Your task to perform on an android device: add a label to a message in the gmail app Image 0: 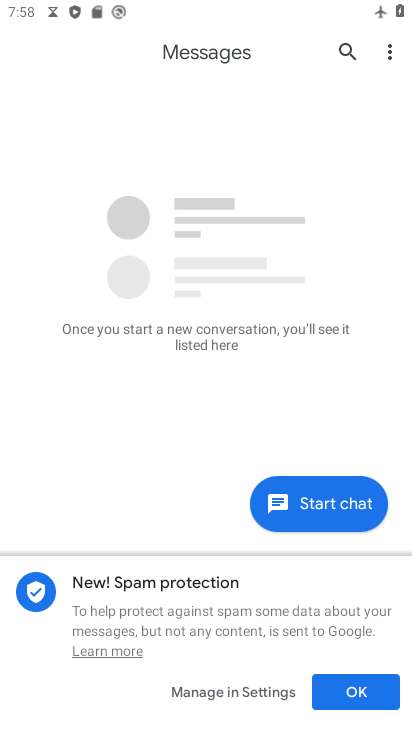
Step 0: press home button
Your task to perform on an android device: add a label to a message in the gmail app Image 1: 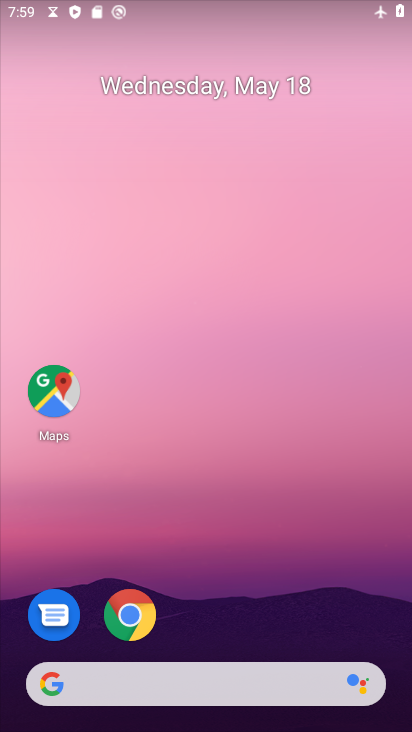
Step 1: drag from (239, 625) to (237, 128)
Your task to perform on an android device: add a label to a message in the gmail app Image 2: 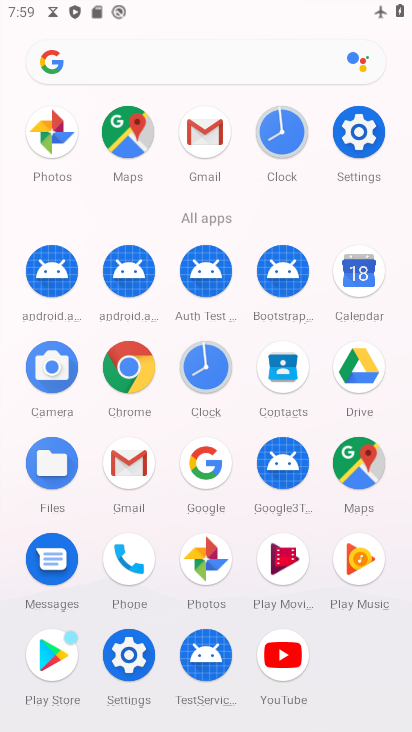
Step 2: click (206, 136)
Your task to perform on an android device: add a label to a message in the gmail app Image 3: 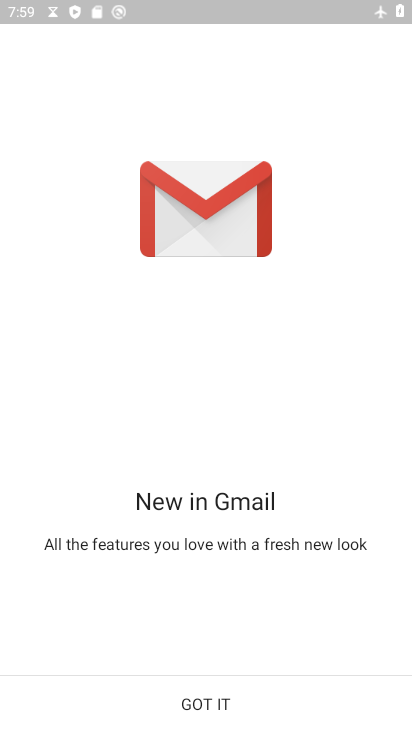
Step 3: click (210, 703)
Your task to perform on an android device: add a label to a message in the gmail app Image 4: 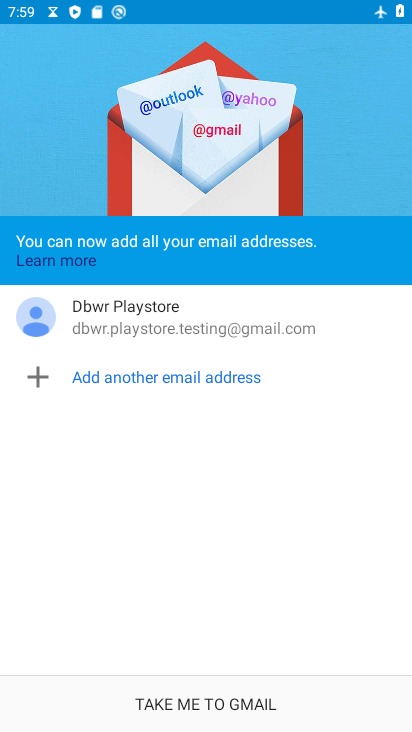
Step 4: click (184, 697)
Your task to perform on an android device: add a label to a message in the gmail app Image 5: 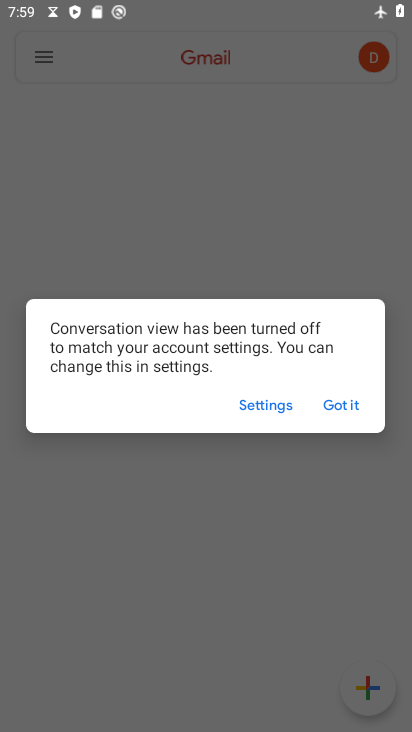
Step 5: click (345, 404)
Your task to perform on an android device: add a label to a message in the gmail app Image 6: 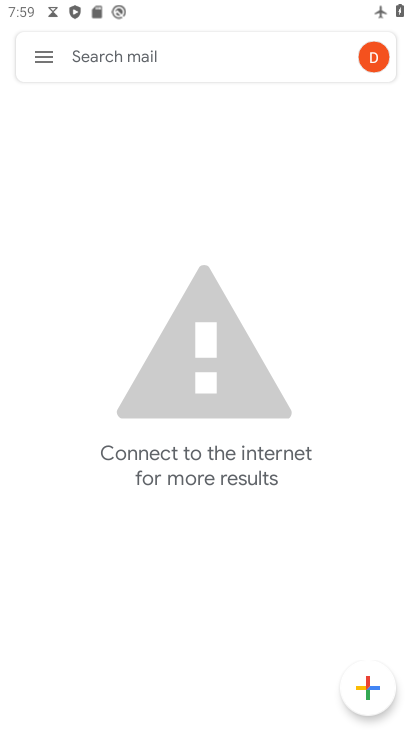
Step 6: click (45, 54)
Your task to perform on an android device: add a label to a message in the gmail app Image 7: 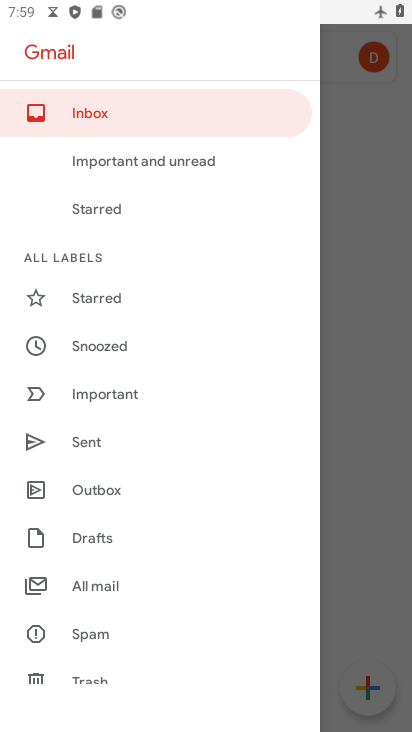
Step 7: click (100, 588)
Your task to perform on an android device: add a label to a message in the gmail app Image 8: 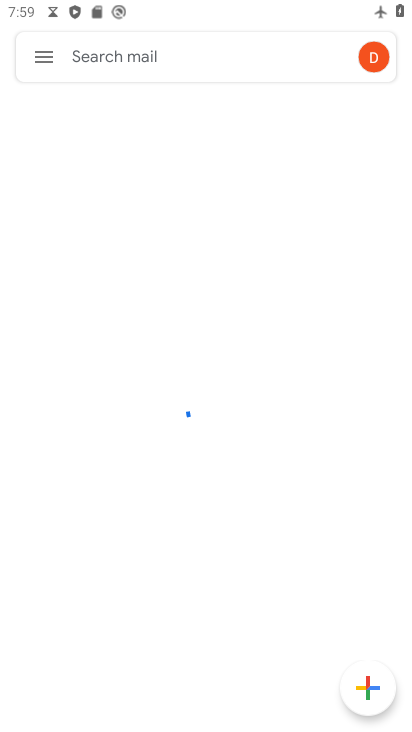
Step 8: drag from (306, 3) to (258, 363)
Your task to perform on an android device: add a label to a message in the gmail app Image 9: 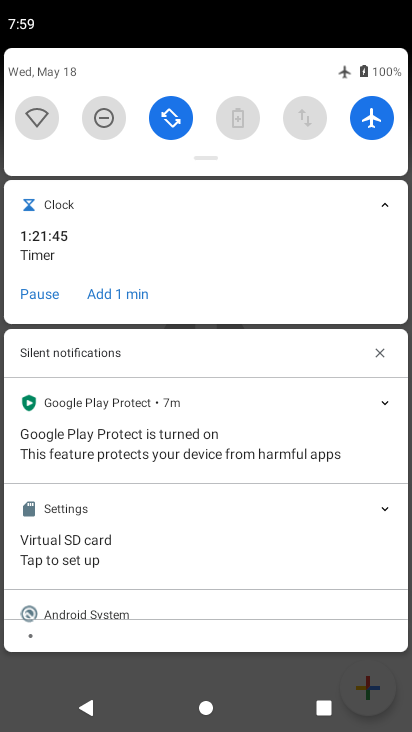
Step 9: click (375, 109)
Your task to perform on an android device: add a label to a message in the gmail app Image 10: 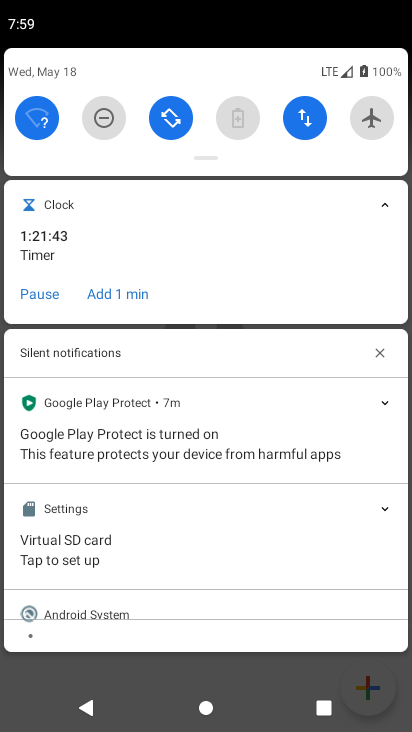
Step 10: drag from (253, 678) to (338, 189)
Your task to perform on an android device: add a label to a message in the gmail app Image 11: 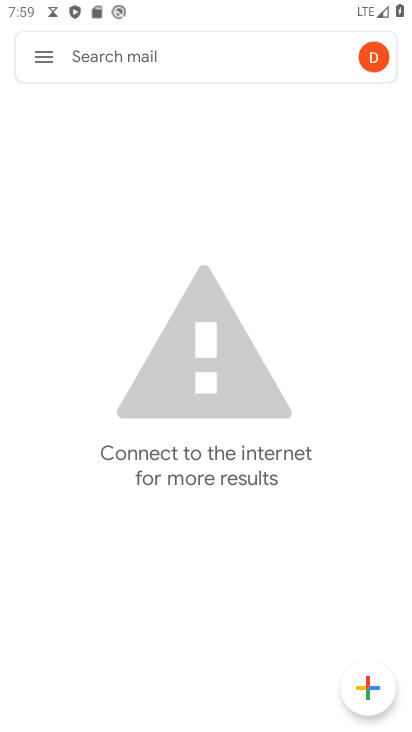
Step 11: click (45, 50)
Your task to perform on an android device: add a label to a message in the gmail app Image 12: 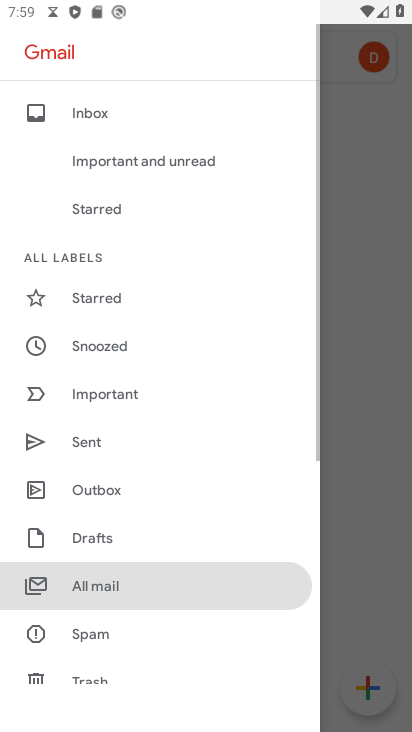
Step 12: click (92, 115)
Your task to perform on an android device: add a label to a message in the gmail app Image 13: 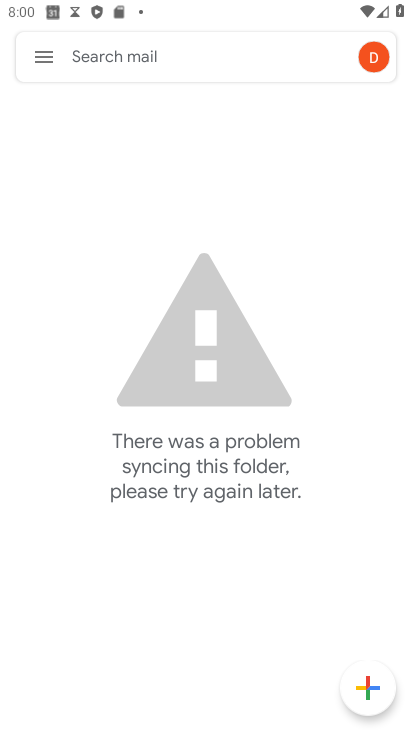
Step 13: click (34, 60)
Your task to perform on an android device: add a label to a message in the gmail app Image 14: 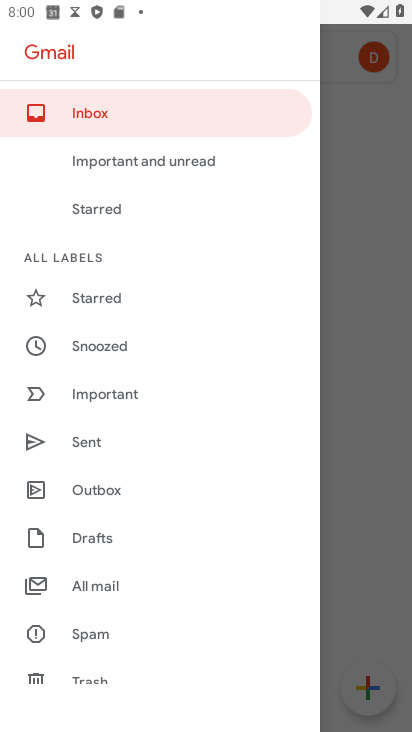
Step 14: click (120, 583)
Your task to perform on an android device: add a label to a message in the gmail app Image 15: 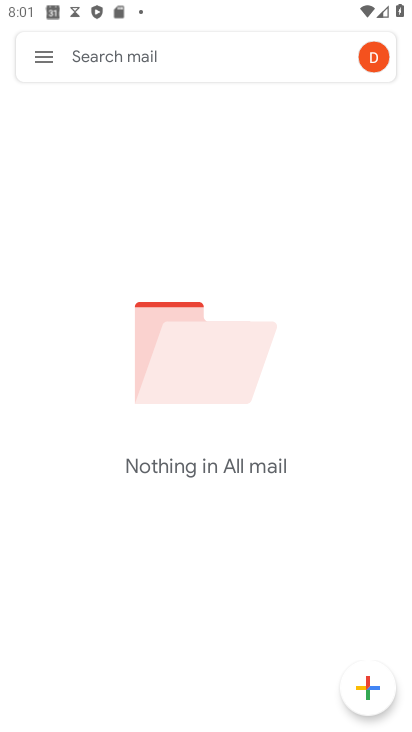
Step 15: task complete